Your task to perform on an android device: turn off picture-in-picture Image 0: 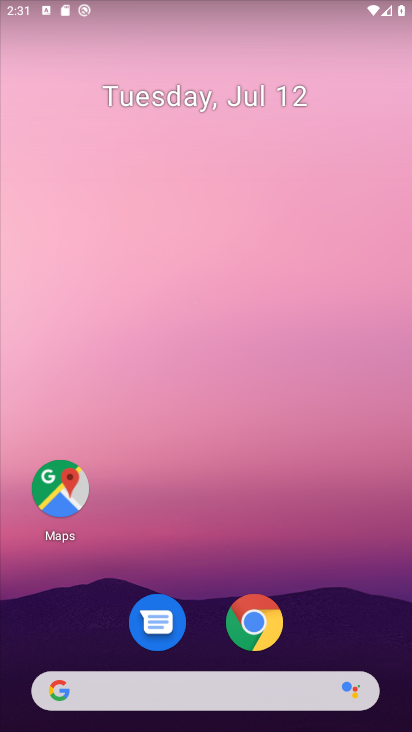
Step 0: press home button
Your task to perform on an android device: turn off picture-in-picture Image 1: 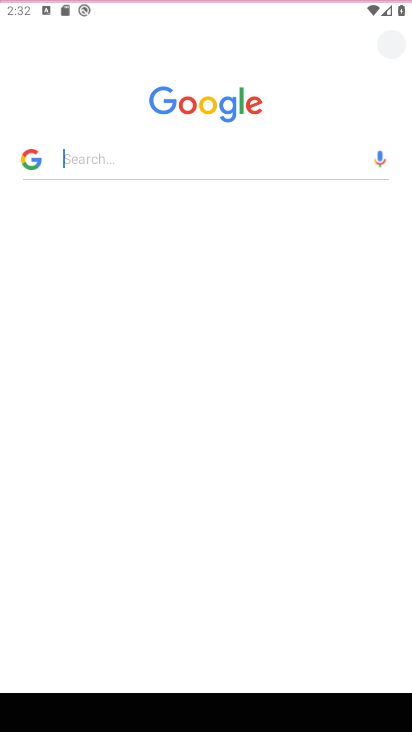
Step 1: drag from (198, 653) to (332, 324)
Your task to perform on an android device: turn off picture-in-picture Image 2: 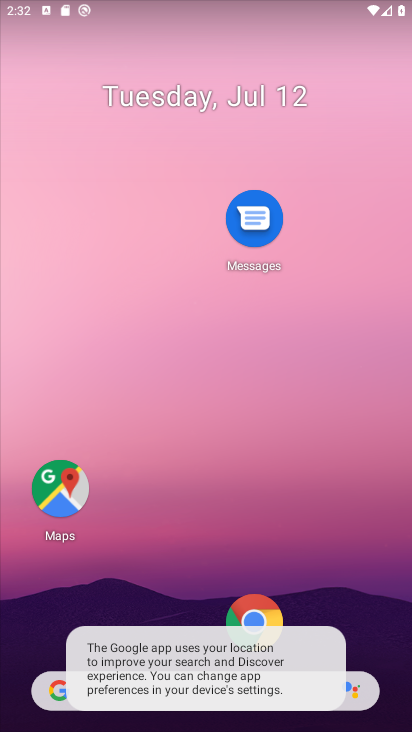
Step 2: click (257, 623)
Your task to perform on an android device: turn off picture-in-picture Image 3: 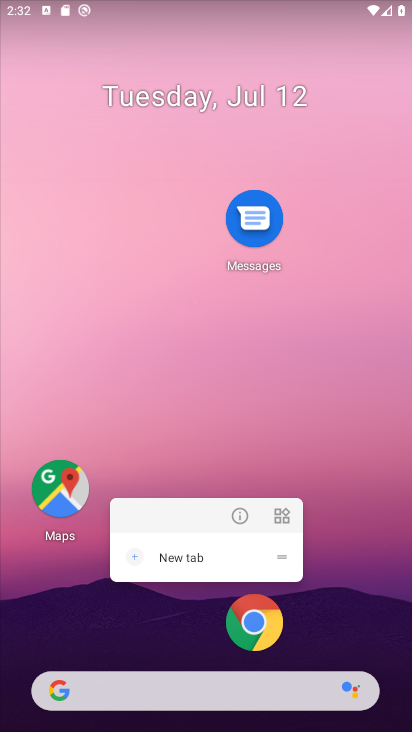
Step 3: click (237, 515)
Your task to perform on an android device: turn off picture-in-picture Image 4: 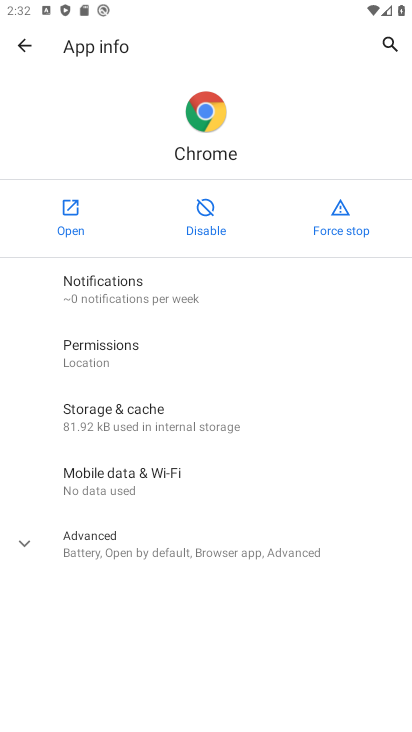
Step 4: click (20, 541)
Your task to perform on an android device: turn off picture-in-picture Image 5: 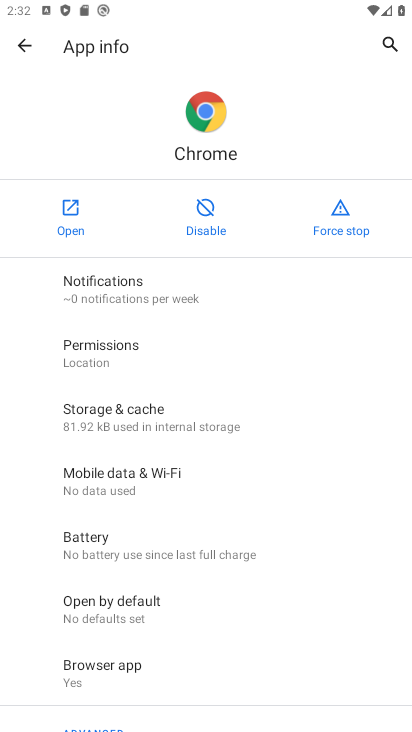
Step 5: drag from (152, 691) to (198, 191)
Your task to perform on an android device: turn off picture-in-picture Image 6: 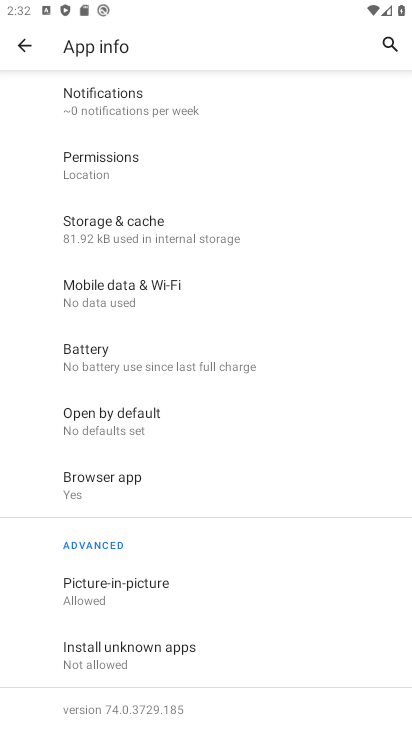
Step 6: click (114, 594)
Your task to perform on an android device: turn off picture-in-picture Image 7: 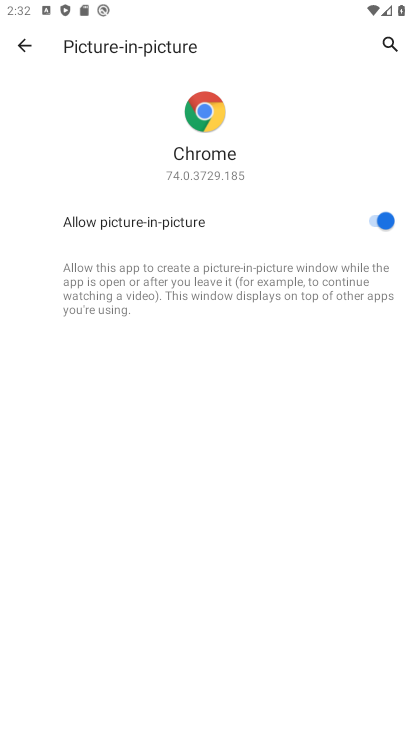
Step 7: click (373, 221)
Your task to perform on an android device: turn off picture-in-picture Image 8: 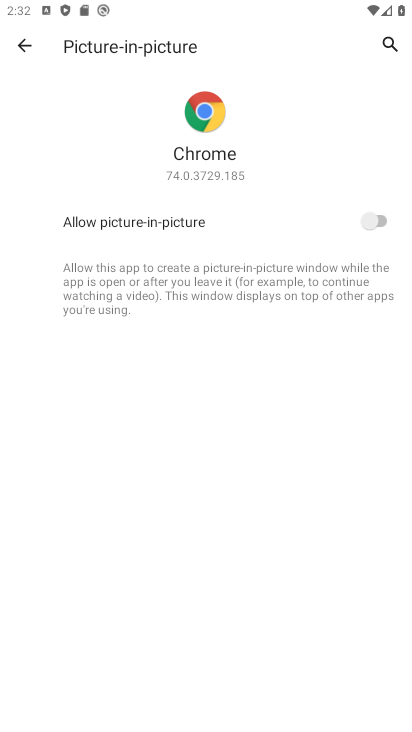
Step 8: task complete